Your task to perform on an android device: What is the recent news? Image 0: 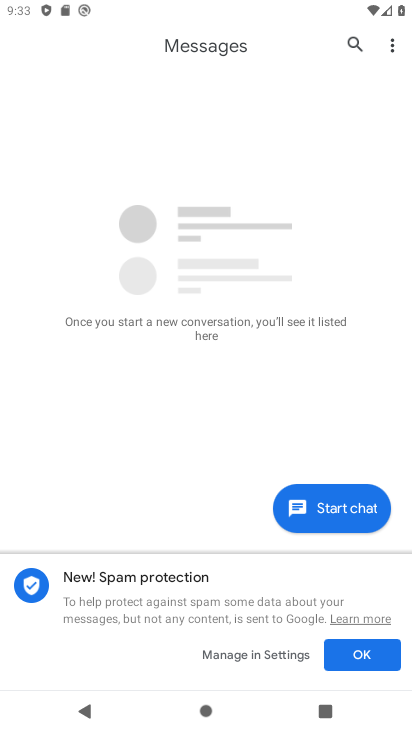
Step 0: press home button
Your task to perform on an android device: What is the recent news? Image 1: 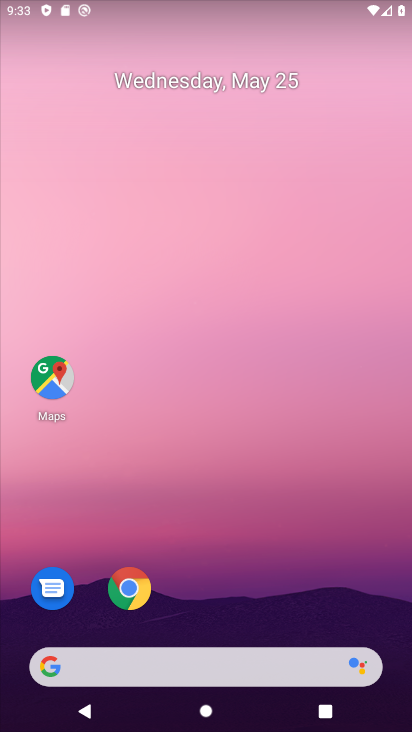
Step 1: click (164, 661)
Your task to perform on an android device: What is the recent news? Image 2: 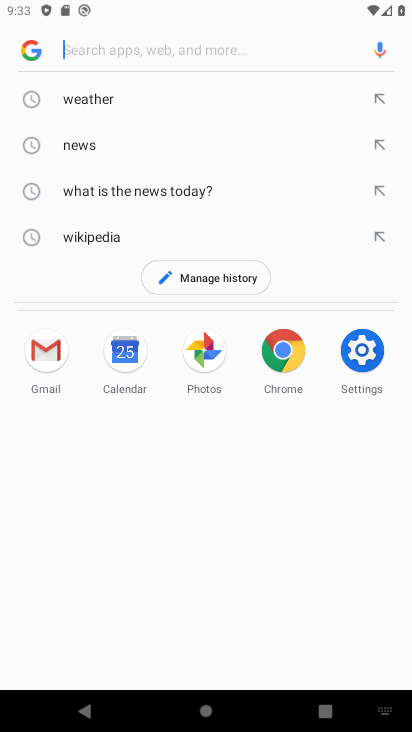
Step 2: type "what is the recent news"
Your task to perform on an android device: What is the recent news? Image 3: 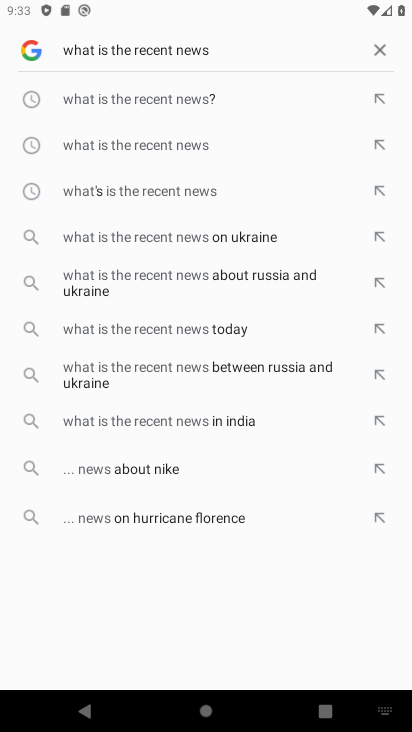
Step 3: click (205, 105)
Your task to perform on an android device: What is the recent news? Image 4: 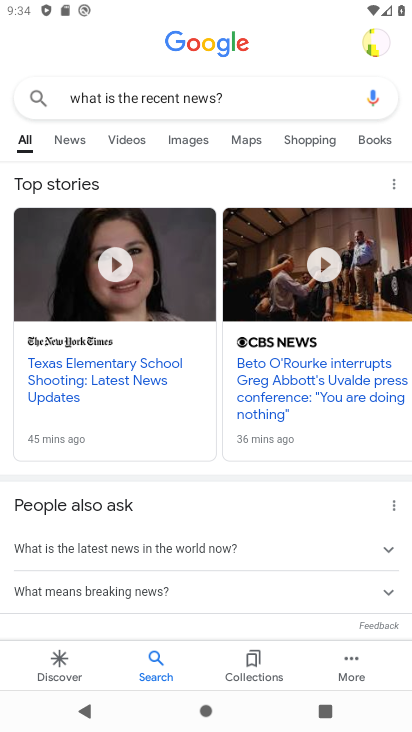
Step 4: click (62, 129)
Your task to perform on an android device: What is the recent news? Image 5: 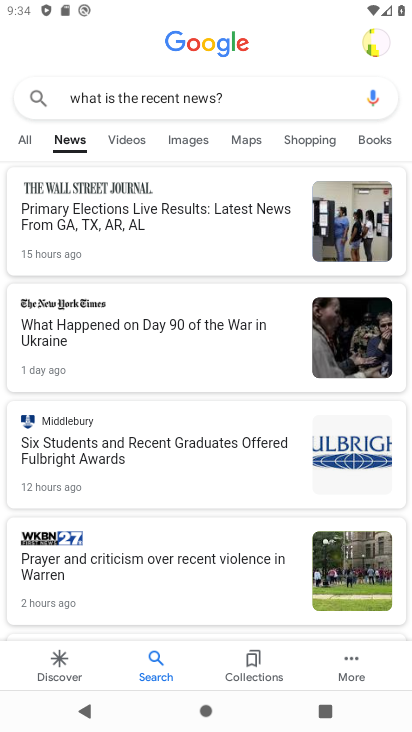
Step 5: task complete